Your task to perform on an android device: Go to ESPN.com Image 0: 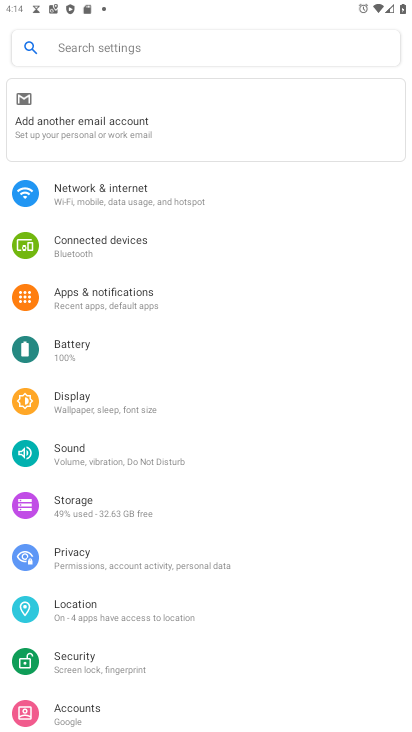
Step 0: press home button
Your task to perform on an android device: Go to ESPN.com Image 1: 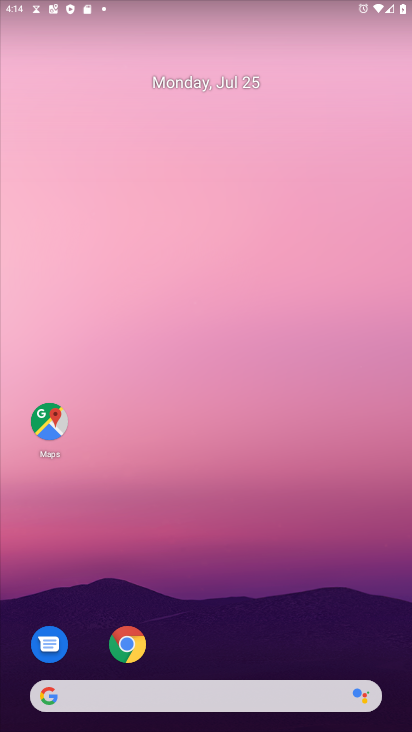
Step 1: click (43, 704)
Your task to perform on an android device: Go to ESPN.com Image 2: 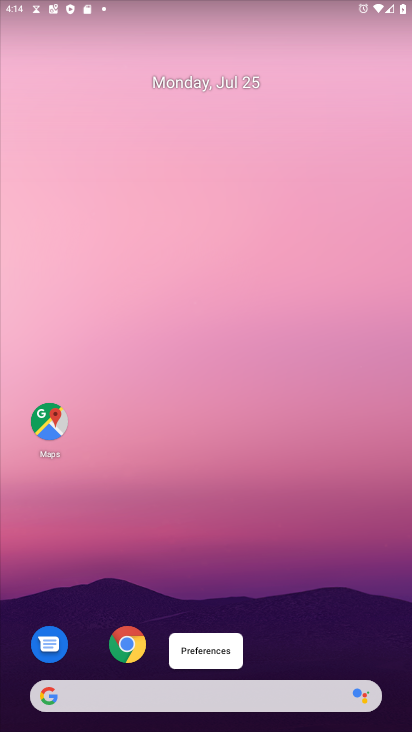
Step 2: click (43, 698)
Your task to perform on an android device: Go to ESPN.com Image 3: 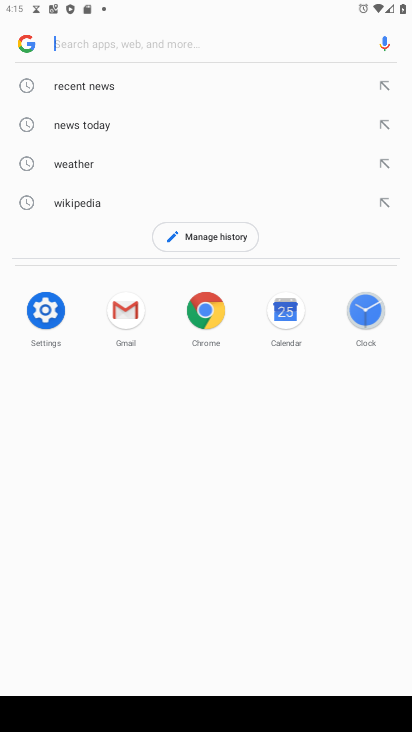
Step 3: type "ESPN.com"
Your task to perform on an android device: Go to ESPN.com Image 4: 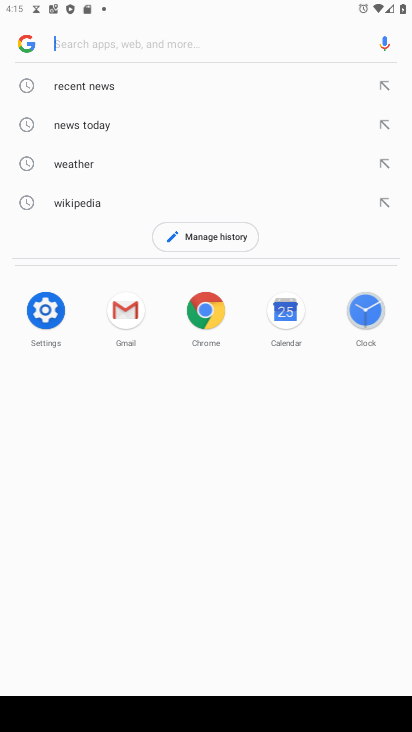
Step 4: click (107, 42)
Your task to perform on an android device: Go to ESPN.com Image 5: 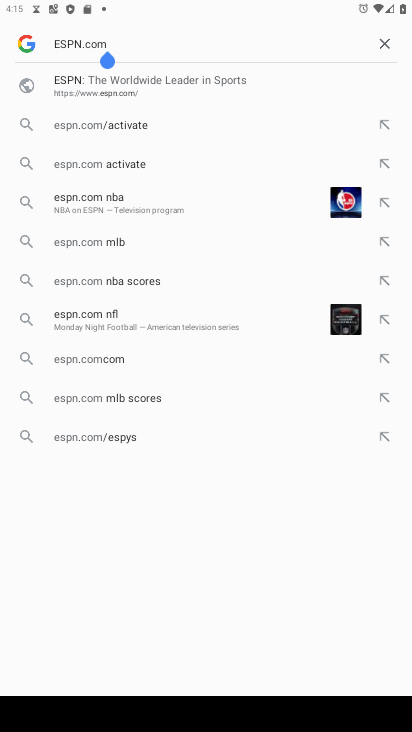
Step 5: click (139, 84)
Your task to perform on an android device: Go to ESPN.com Image 6: 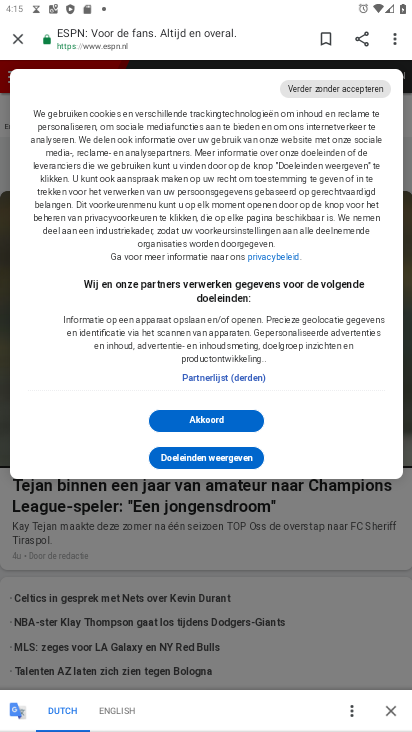
Step 6: click (240, 420)
Your task to perform on an android device: Go to ESPN.com Image 7: 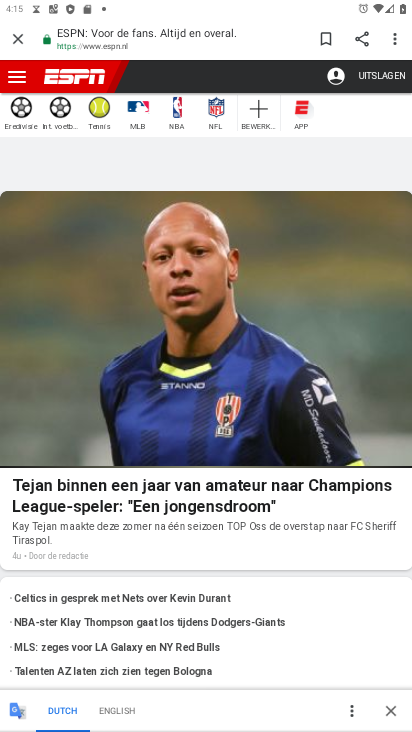
Step 7: task complete